Your task to perform on an android device: turn off priority inbox in the gmail app Image 0: 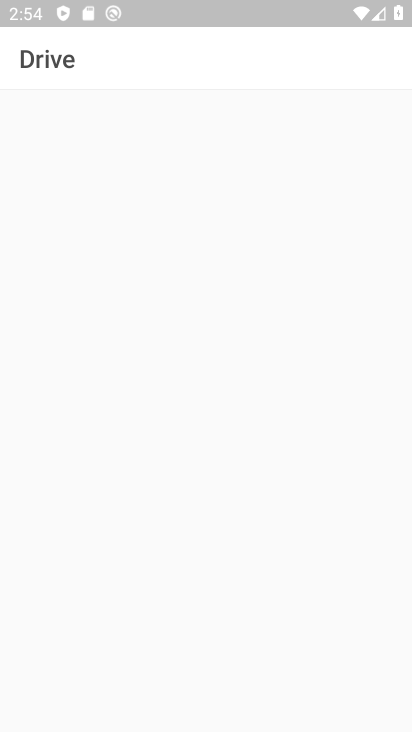
Step 0: press home button
Your task to perform on an android device: turn off priority inbox in the gmail app Image 1: 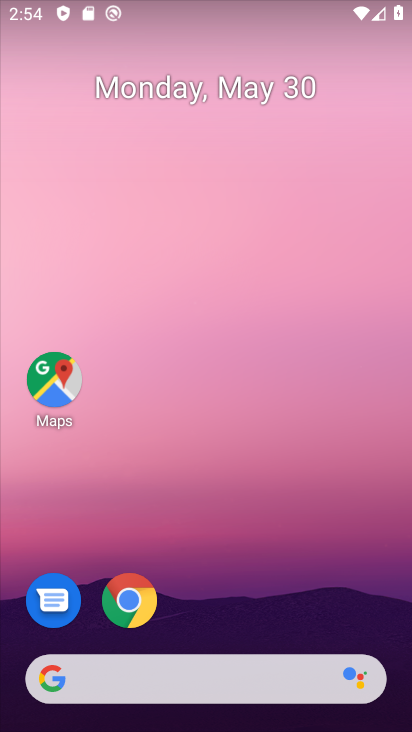
Step 1: drag from (221, 645) to (224, 94)
Your task to perform on an android device: turn off priority inbox in the gmail app Image 2: 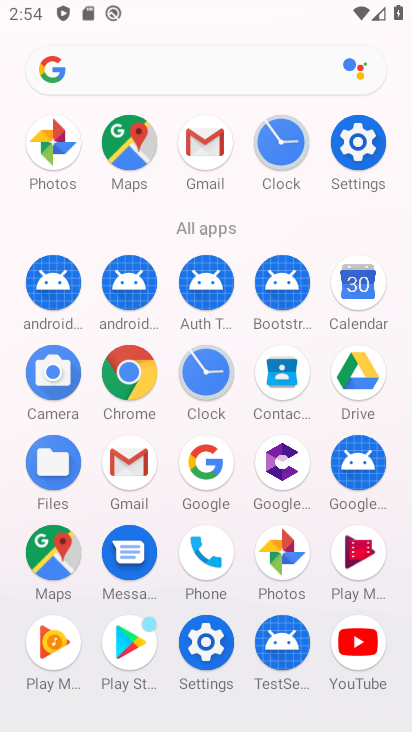
Step 2: click (123, 458)
Your task to perform on an android device: turn off priority inbox in the gmail app Image 3: 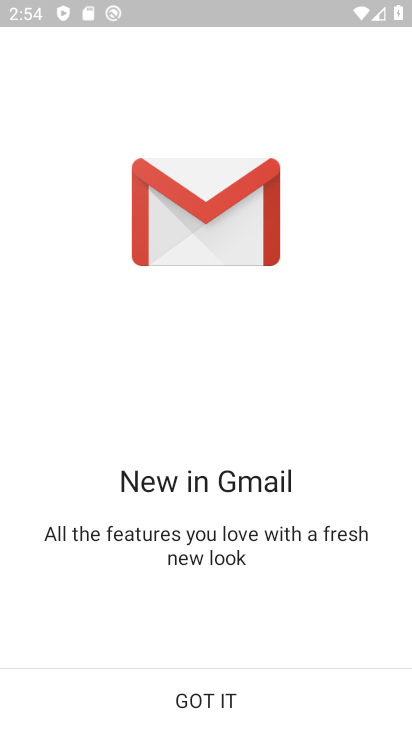
Step 3: click (202, 692)
Your task to perform on an android device: turn off priority inbox in the gmail app Image 4: 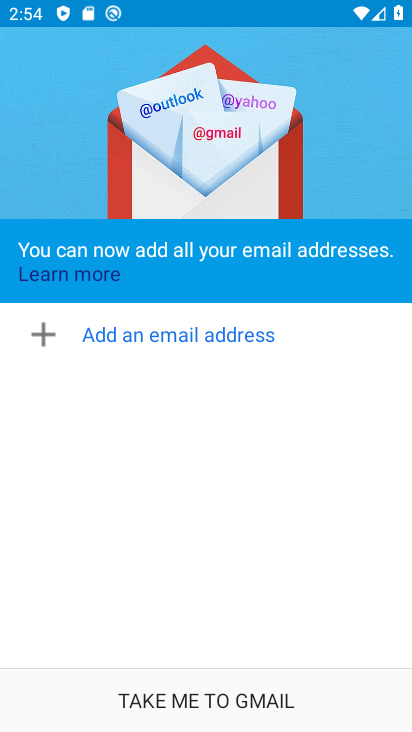
Step 4: click (202, 692)
Your task to perform on an android device: turn off priority inbox in the gmail app Image 5: 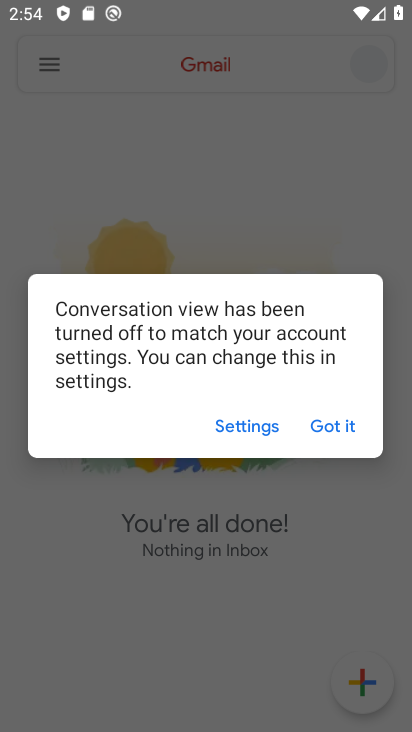
Step 5: click (337, 426)
Your task to perform on an android device: turn off priority inbox in the gmail app Image 6: 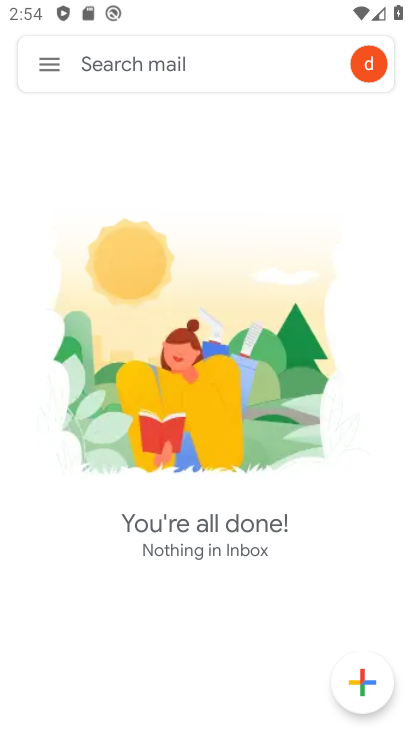
Step 6: click (44, 66)
Your task to perform on an android device: turn off priority inbox in the gmail app Image 7: 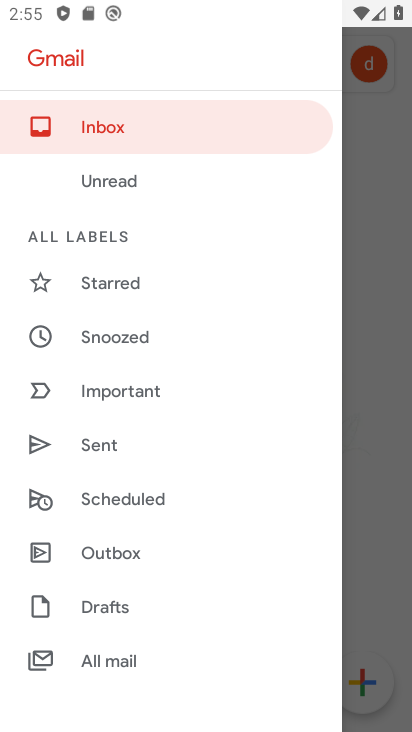
Step 7: drag from (120, 669) to (143, 136)
Your task to perform on an android device: turn off priority inbox in the gmail app Image 8: 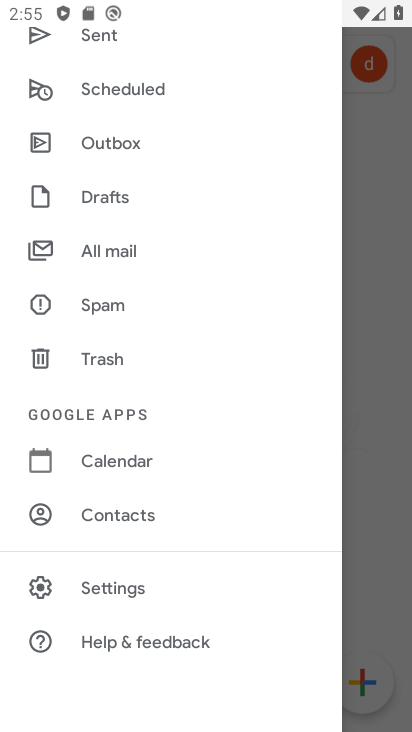
Step 8: click (109, 589)
Your task to perform on an android device: turn off priority inbox in the gmail app Image 9: 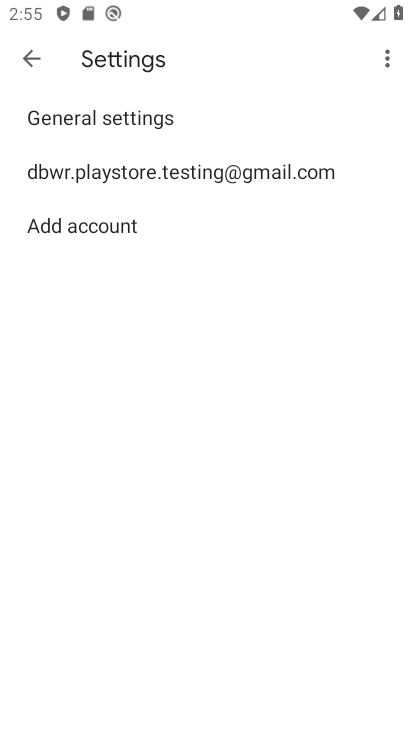
Step 9: click (162, 170)
Your task to perform on an android device: turn off priority inbox in the gmail app Image 10: 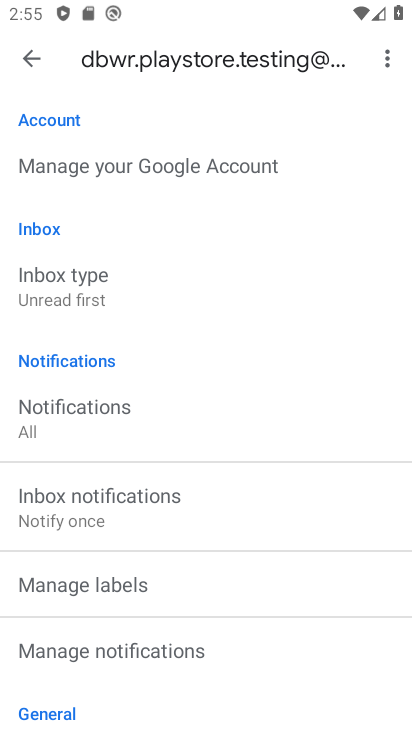
Step 10: click (65, 296)
Your task to perform on an android device: turn off priority inbox in the gmail app Image 11: 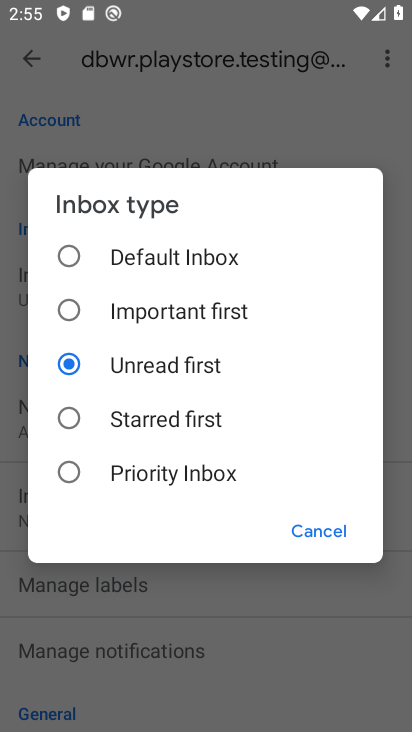
Step 11: click (322, 527)
Your task to perform on an android device: turn off priority inbox in the gmail app Image 12: 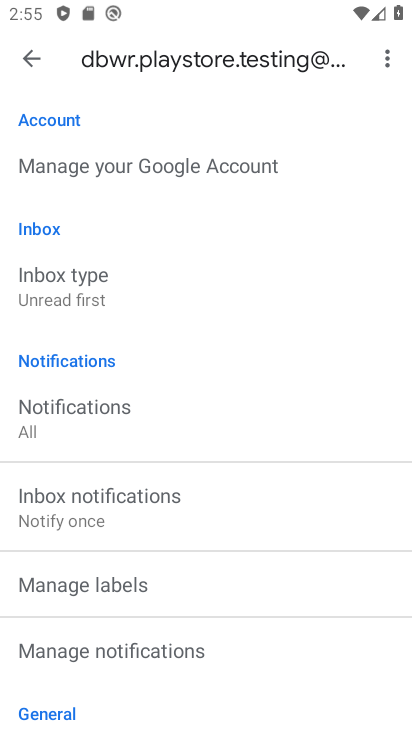
Step 12: task complete